Your task to perform on an android device: What's the weather today? Image 0: 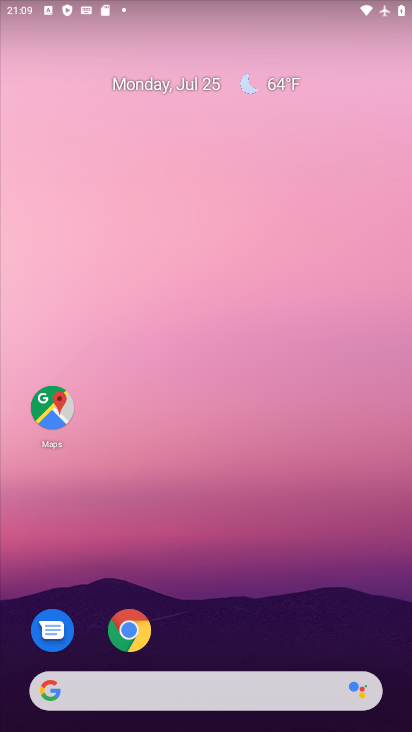
Step 0: click (277, 84)
Your task to perform on an android device: What's the weather today? Image 1: 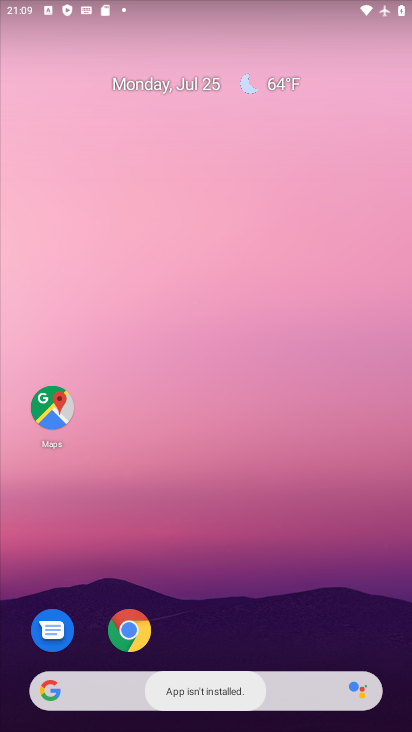
Step 1: click (110, 678)
Your task to perform on an android device: What's the weather today? Image 2: 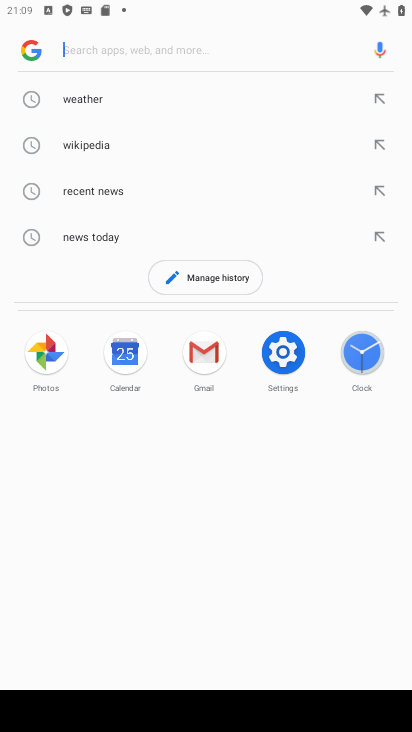
Step 2: click (87, 96)
Your task to perform on an android device: What's the weather today? Image 3: 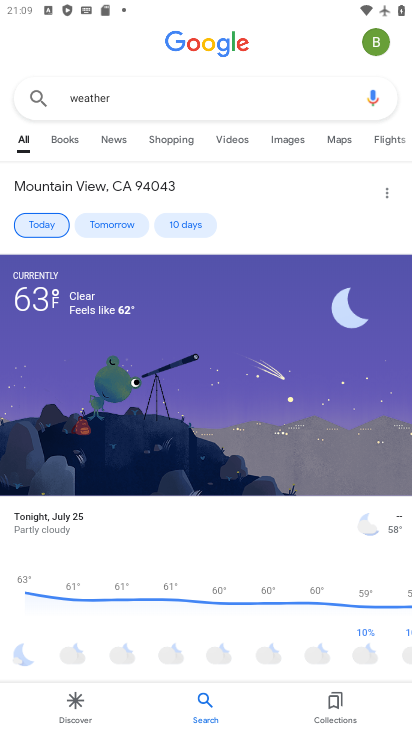
Step 3: task complete